Your task to perform on an android device: View the shopping cart on amazon. Add "dell xps" to the cart on amazon Image 0: 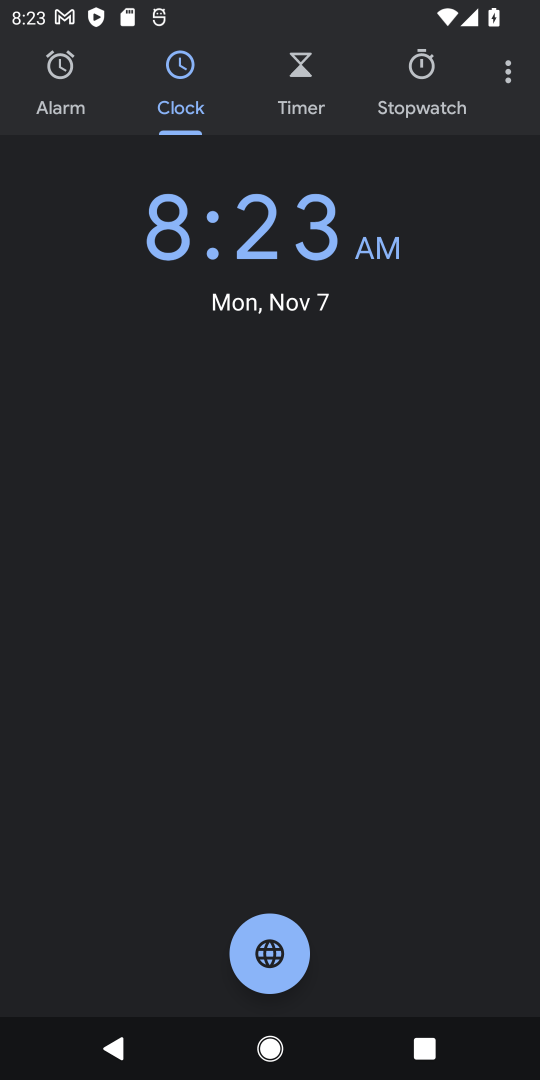
Step 0: press home button
Your task to perform on an android device: View the shopping cart on amazon. Add "dell xps" to the cart on amazon Image 1: 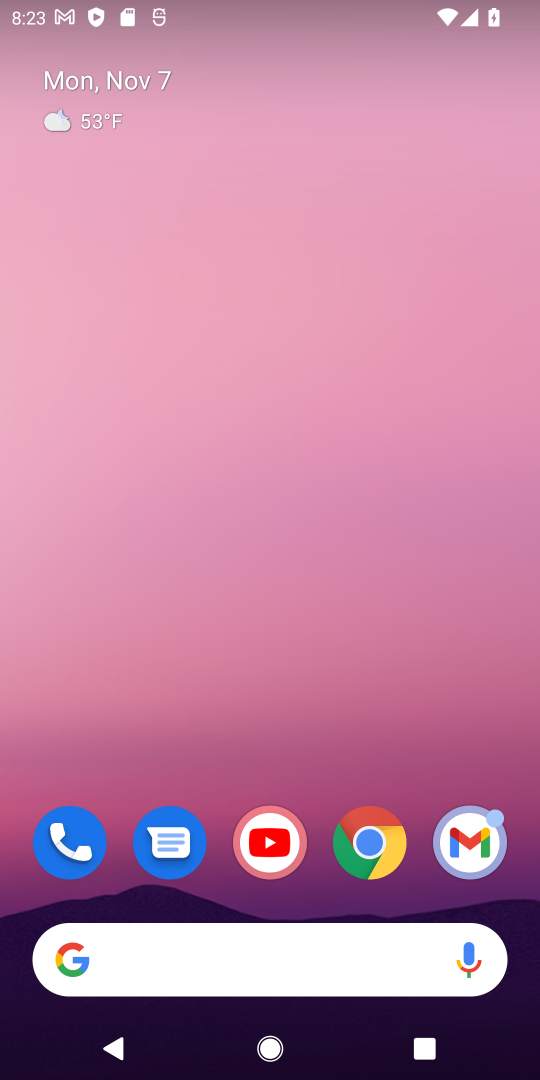
Step 1: click (366, 853)
Your task to perform on an android device: View the shopping cart on amazon. Add "dell xps" to the cart on amazon Image 2: 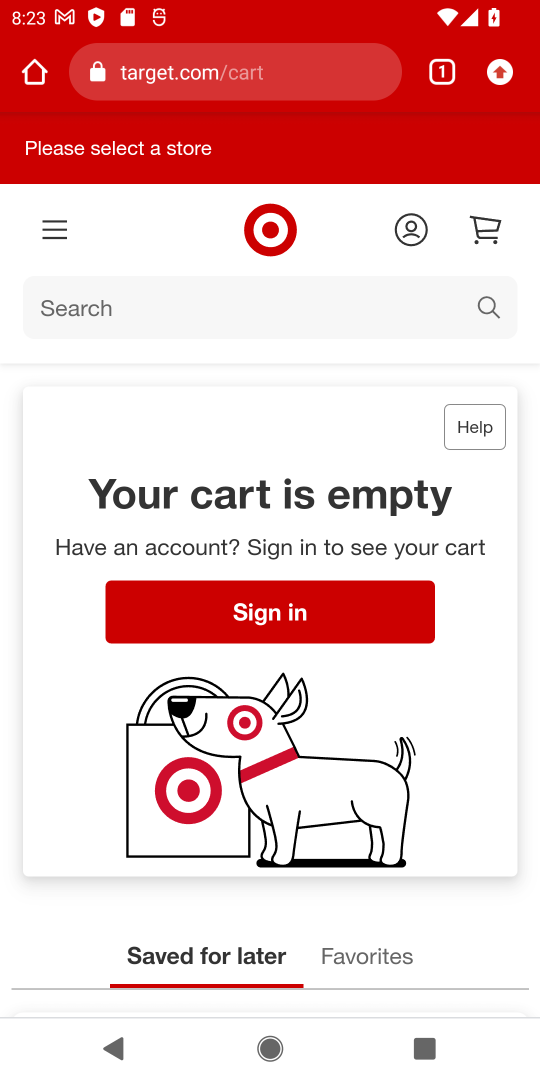
Step 2: click (298, 77)
Your task to perform on an android device: View the shopping cart on amazon. Add "dell xps" to the cart on amazon Image 3: 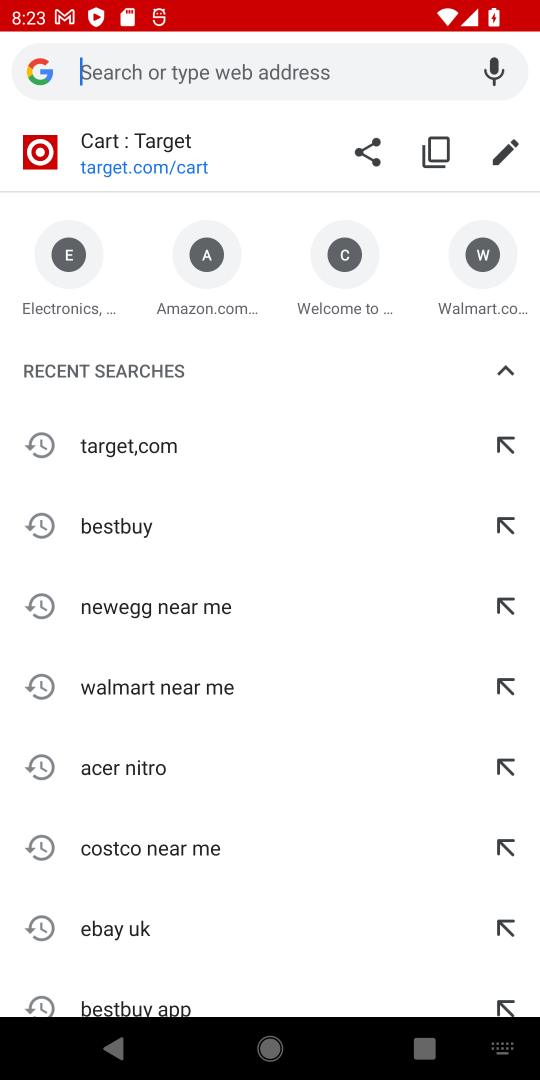
Step 3: click (234, 306)
Your task to perform on an android device: View the shopping cart on amazon. Add "dell xps" to the cart on amazon Image 4: 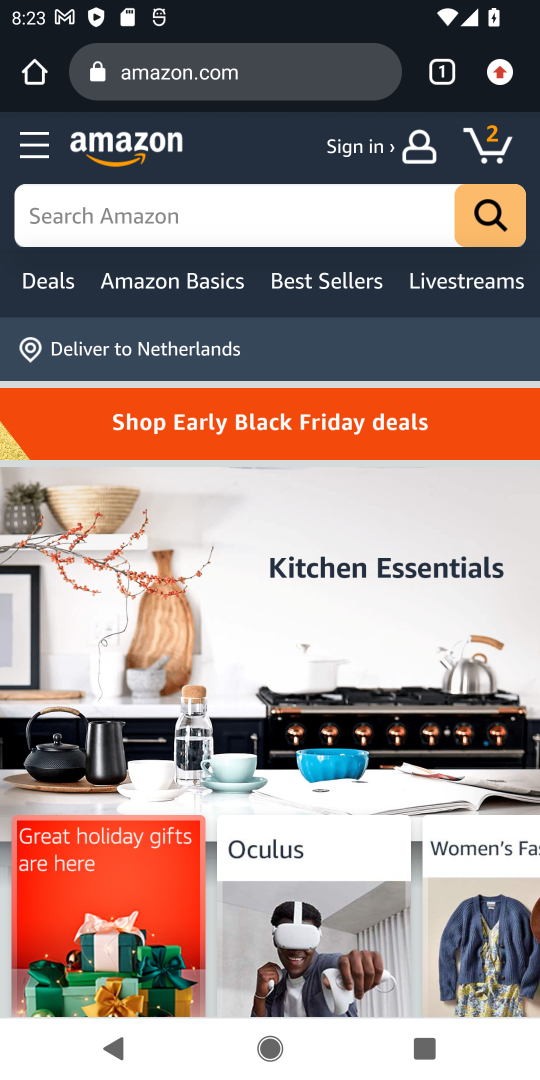
Step 4: click (150, 208)
Your task to perform on an android device: View the shopping cart on amazon. Add "dell xps" to the cart on amazon Image 5: 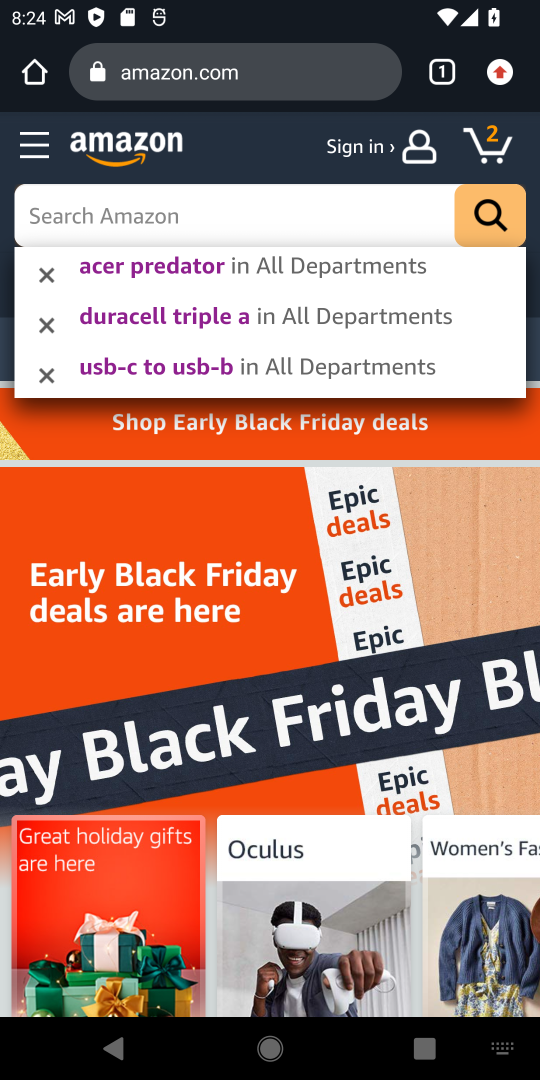
Step 5: press enter
Your task to perform on an android device: View the shopping cart on amazon. Add "dell xps" to the cart on amazon Image 6: 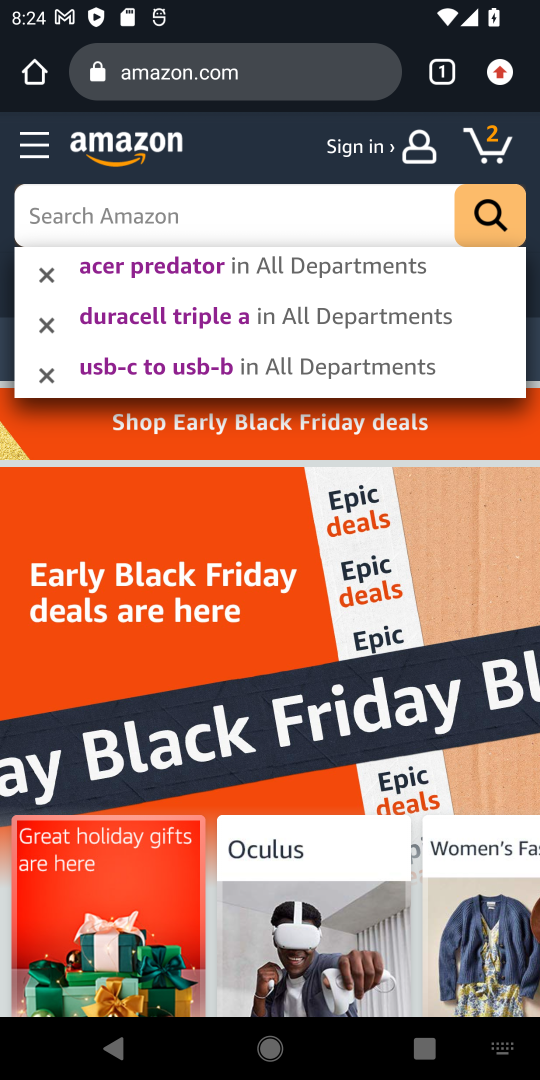
Step 6: type "dell xps"
Your task to perform on an android device: View the shopping cart on amazon. Add "dell xps" to the cart on amazon Image 7: 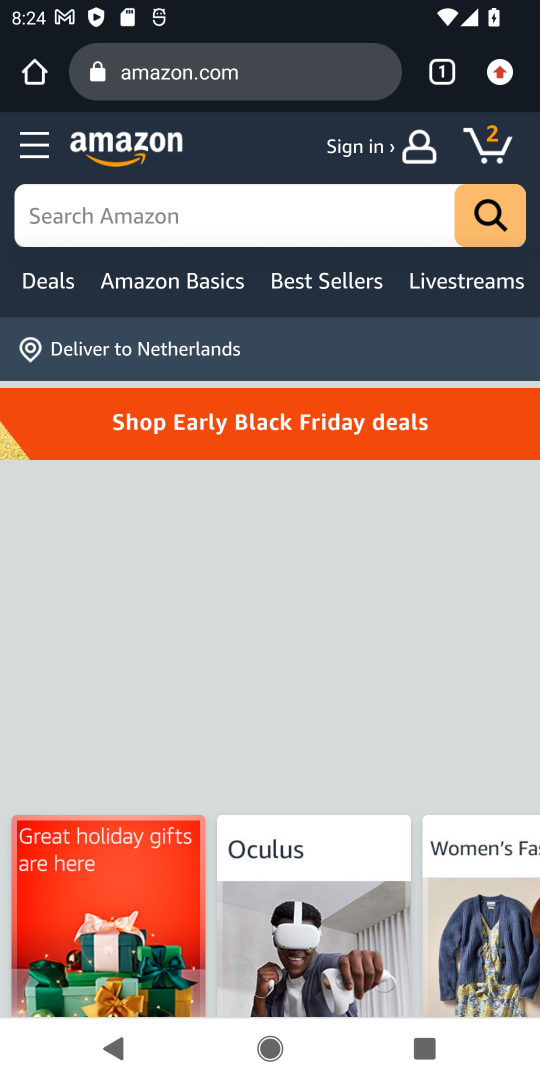
Step 7: click (109, 203)
Your task to perform on an android device: View the shopping cart on amazon. Add "dell xps" to the cart on amazon Image 8: 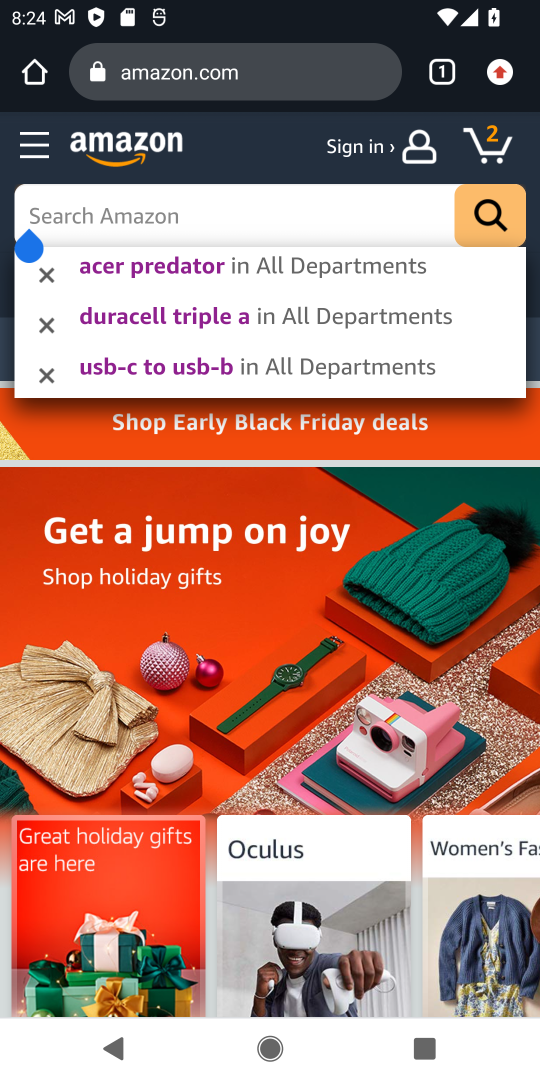
Step 8: click (114, 212)
Your task to perform on an android device: View the shopping cart on amazon. Add "dell xps" to the cart on amazon Image 9: 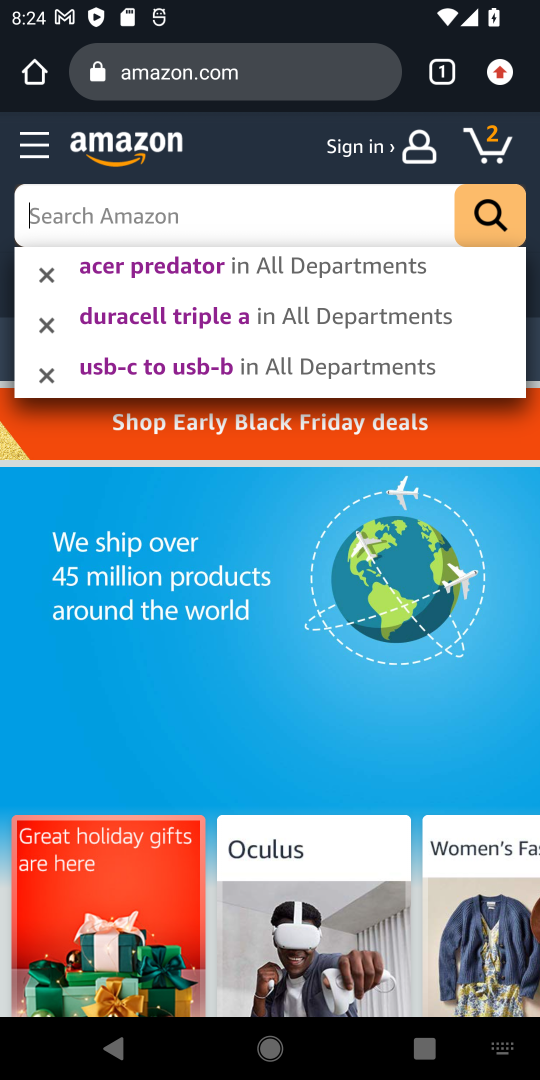
Step 9: type "dell xps"
Your task to perform on an android device: View the shopping cart on amazon. Add "dell xps" to the cart on amazon Image 10: 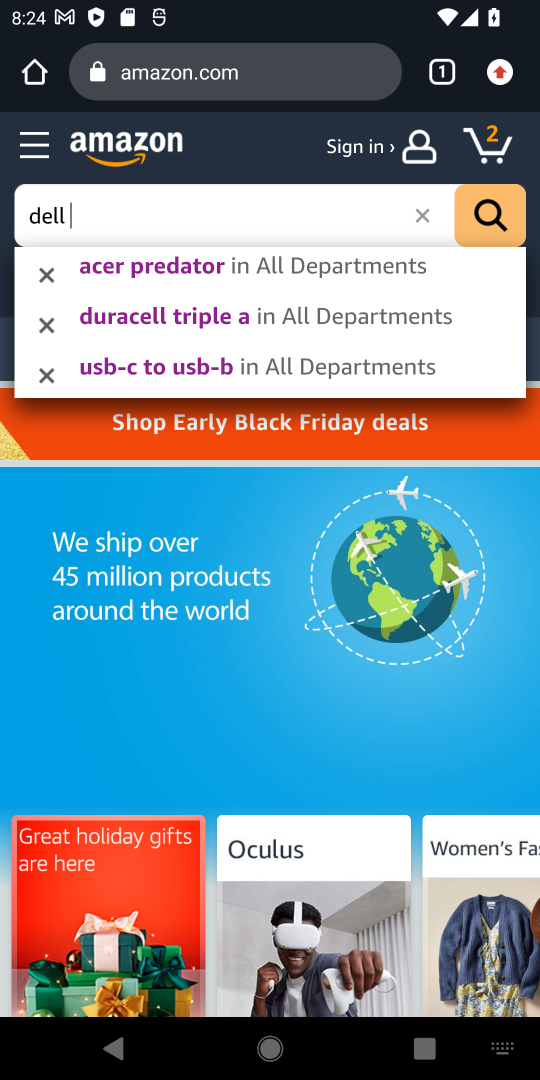
Step 10: press enter
Your task to perform on an android device: View the shopping cart on amazon. Add "dell xps" to the cart on amazon Image 11: 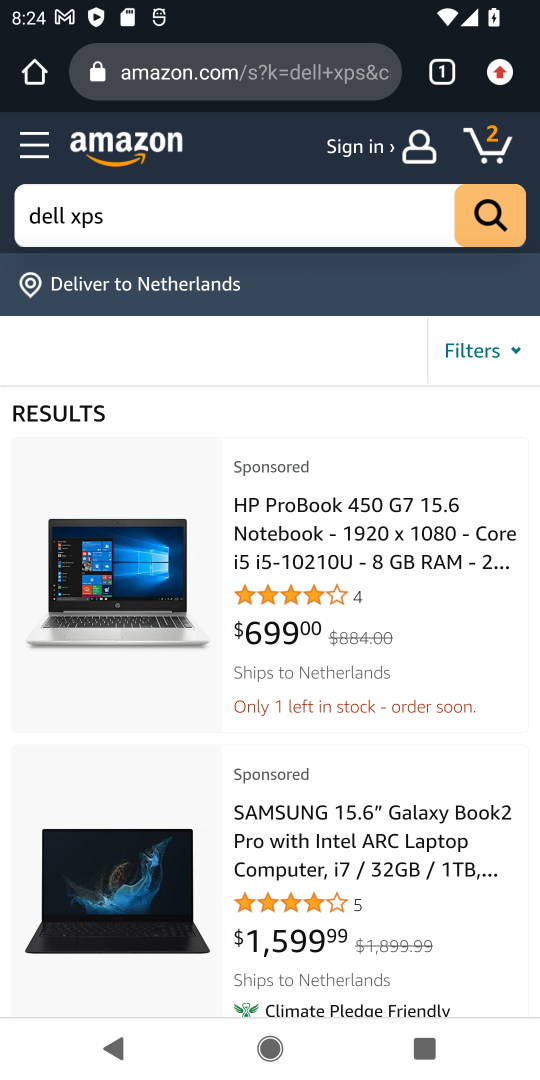
Step 11: drag from (325, 878) to (376, 398)
Your task to perform on an android device: View the shopping cart on amazon. Add "dell xps" to the cart on amazon Image 12: 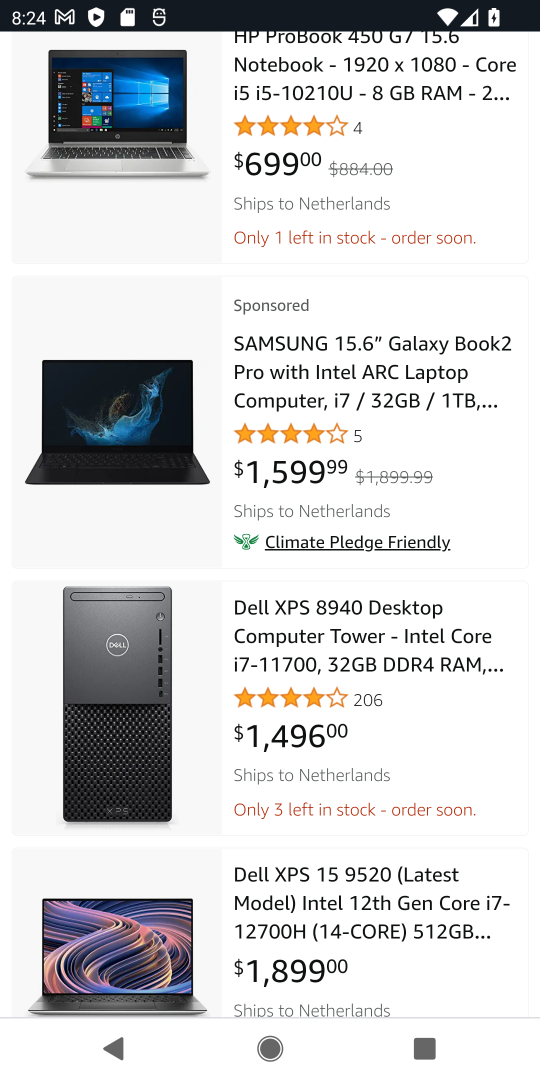
Step 12: click (323, 659)
Your task to perform on an android device: View the shopping cart on amazon. Add "dell xps" to the cart on amazon Image 13: 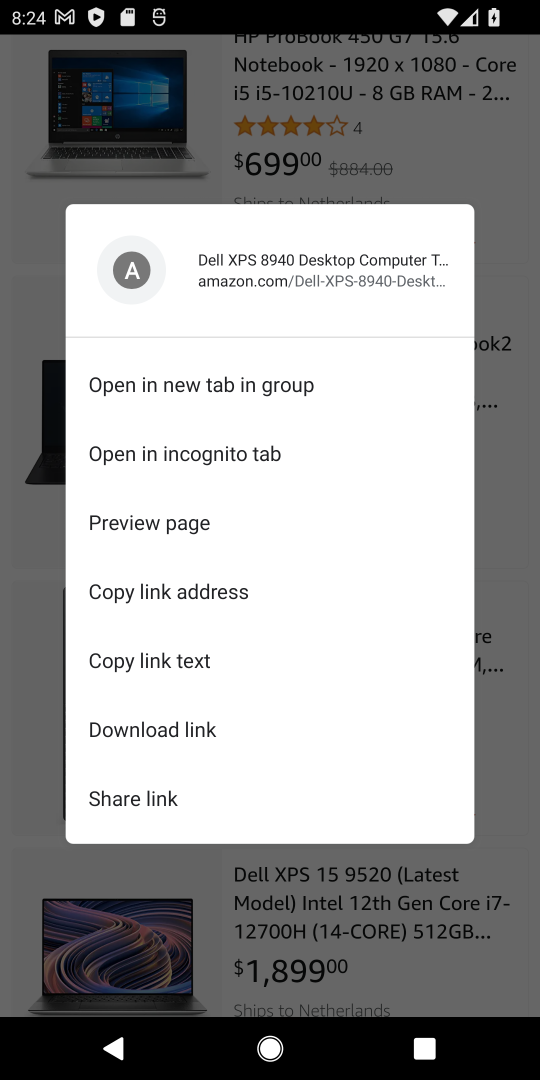
Step 13: click (463, 907)
Your task to perform on an android device: View the shopping cart on amazon. Add "dell xps" to the cart on amazon Image 14: 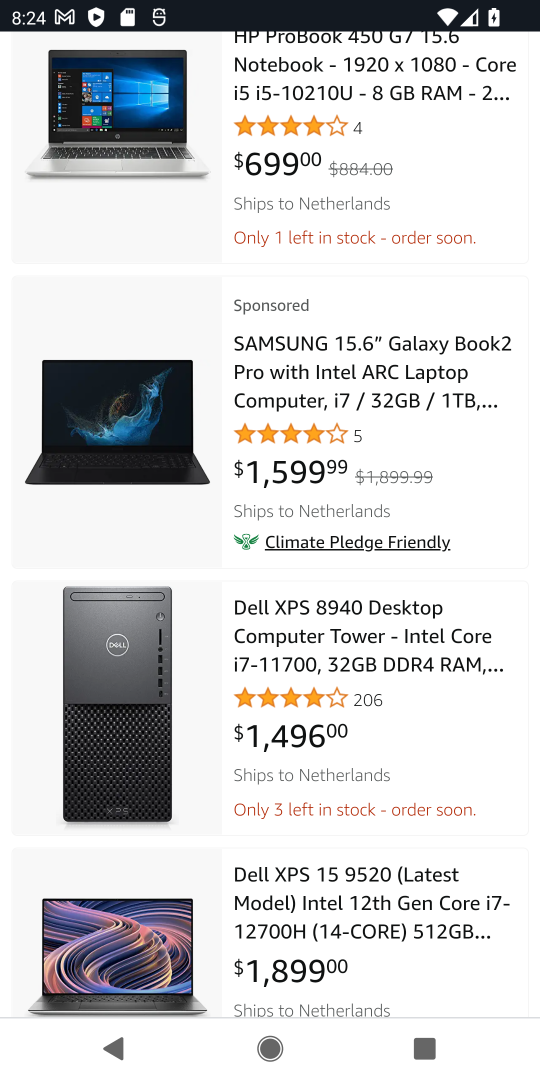
Step 14: click (279, 604)
Your task to perform on an android device: View the shopping cart on amazon. Add "dell xps" to the cart on amazon Image 15: 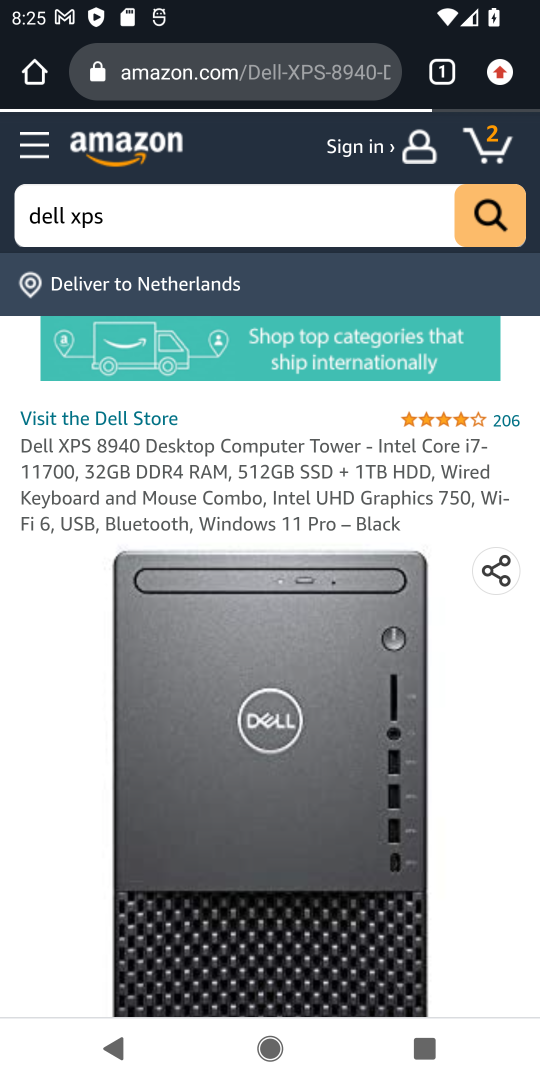
Step 15: drag from (262, 943) to (455, 323)
Your task to perform on an android device: View the shopping cart on amazon. Add "dell xps" to the cart on amazon Image 16: 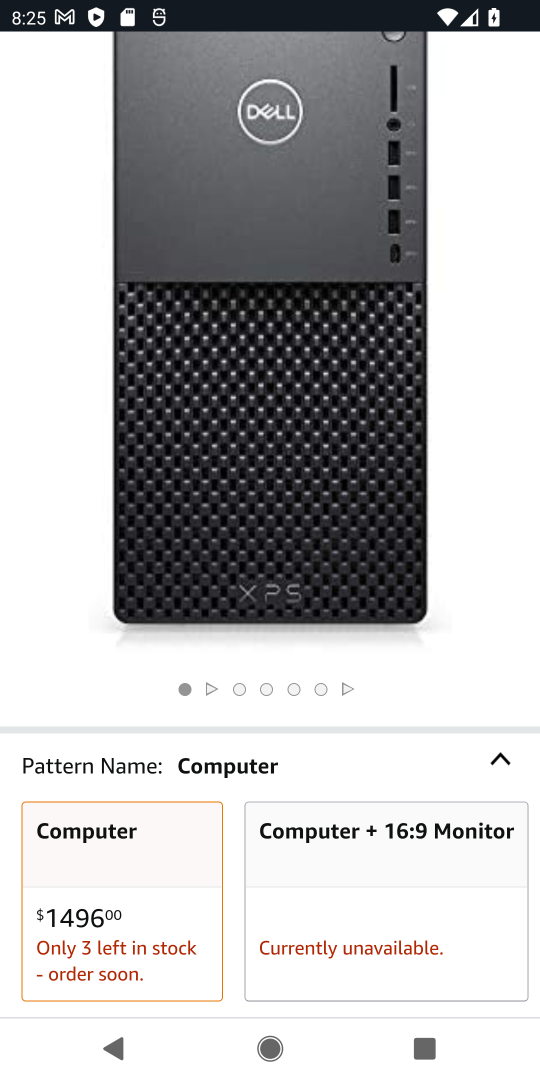
Step 16: drag from (286, 831) to (513, 95)
Your task to perform on an android device: View the shopping cart on amazon. Add "dell xps" to the cart on amazon Image 17: 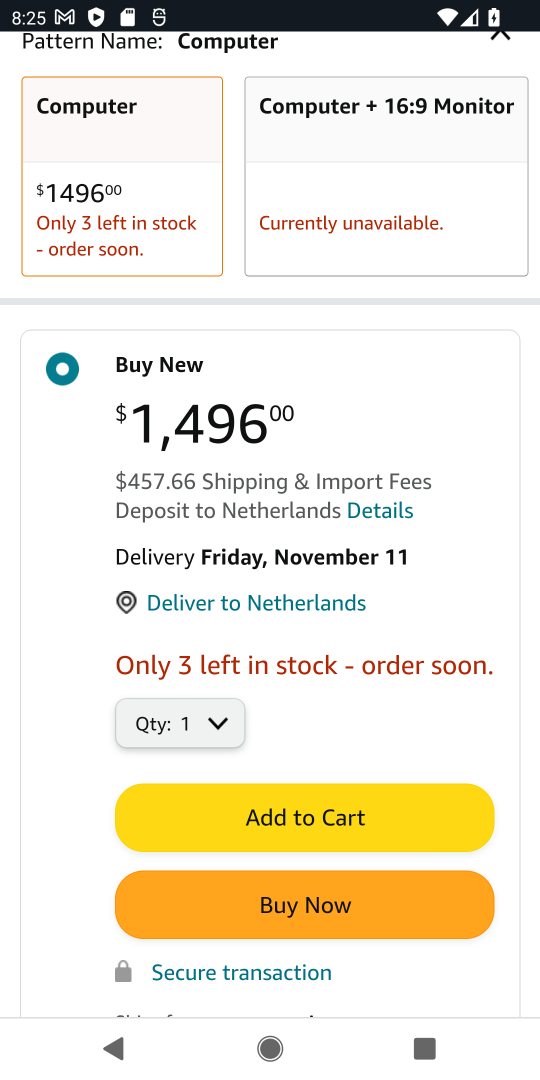
Step 17: click (322, 817)
Your task to perform on an android device: View the shopping cart on amazon. Add "dell xps" to the cart on amazon Image 18: 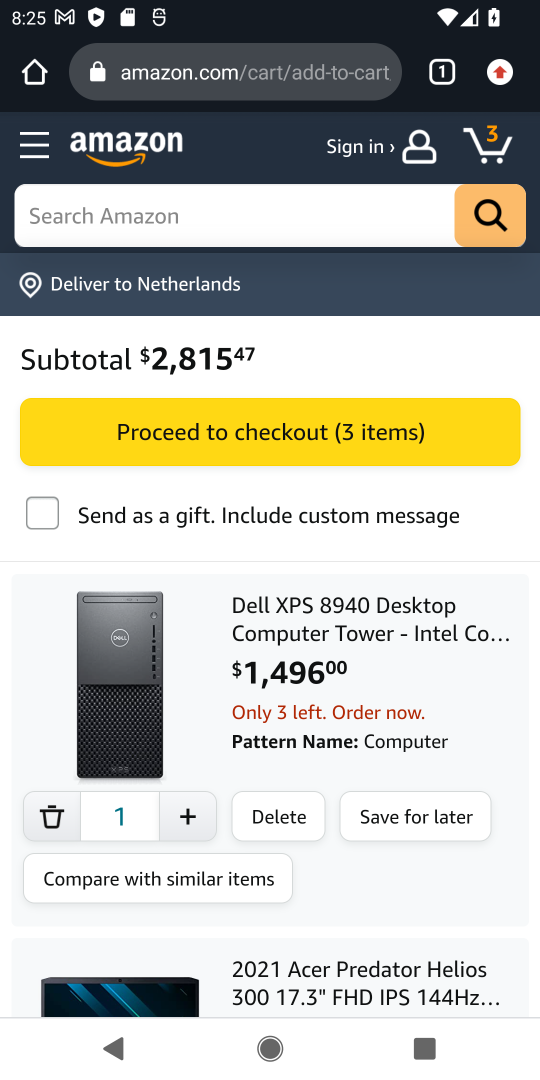
Step 18: click (486, 129)
Your task to perform on an android device: View the shopping cart on amazon. Add "dell xps" to the cart on amazon Image 19: 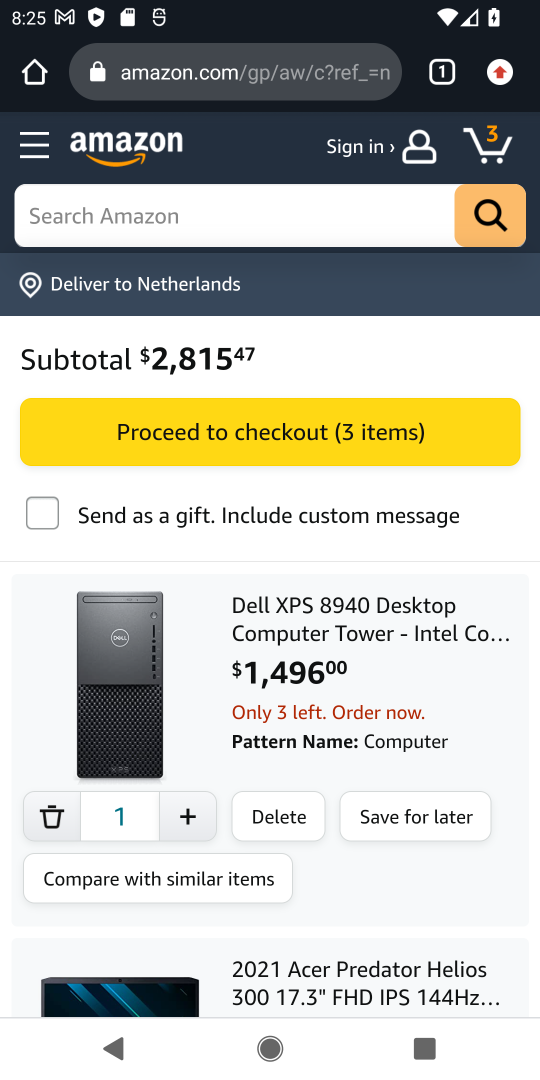
Step 19: drag from (291, 937) to (476, 203)
Your task to perform on an android device: View the shopping cart on amazon. Add "dell xps" to the cart on amazon Image 20: 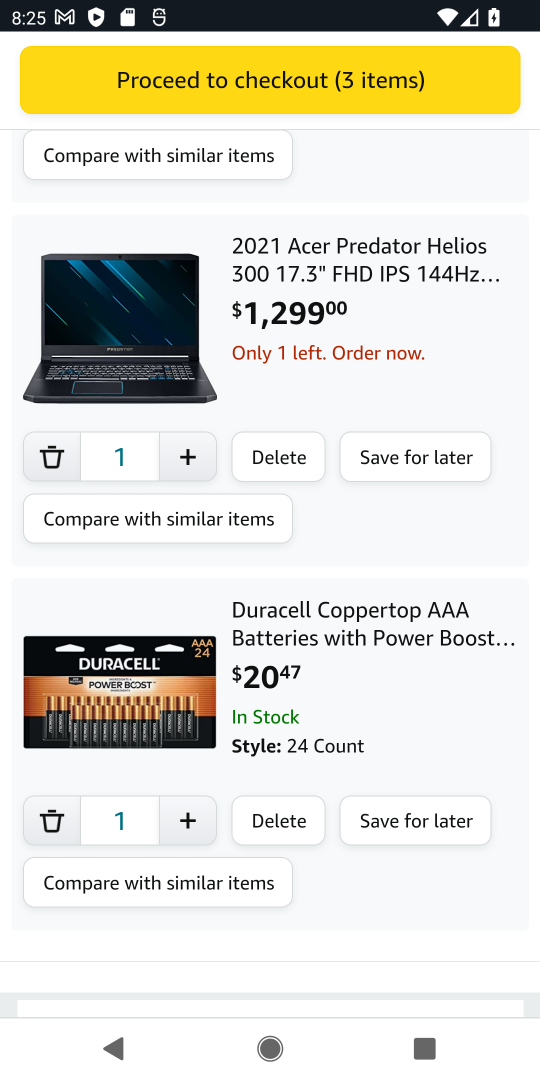
Step 20: click (280, 449)
Your task to perform on an android device: View the shopping cart on amazon. Add "dell xps" to the cart on amazon Image 21: 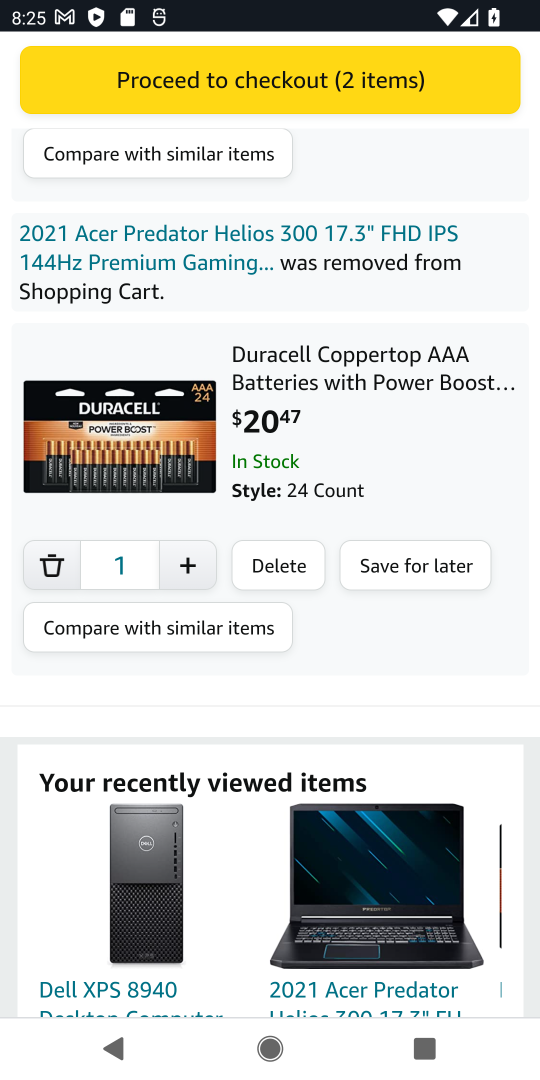
Step 21: click (290, 563)
Your task to perform on an android device: View the shopping cart on amazon. Add "dell xps" to the cart on amazon Image 22: 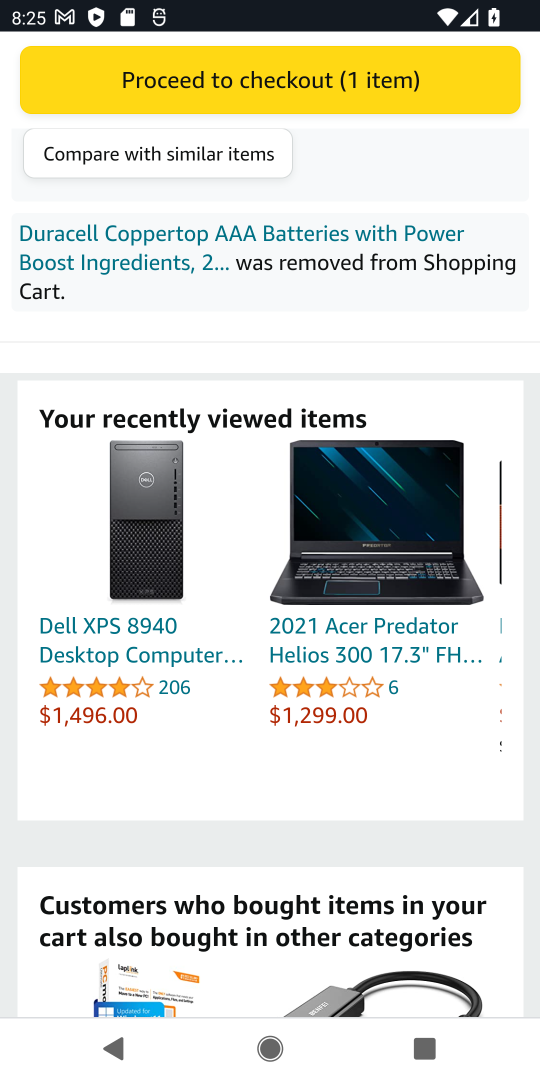
Step 22: task complete